Your task to perform on an android device: turn on data saver in the chrome app Image 0: 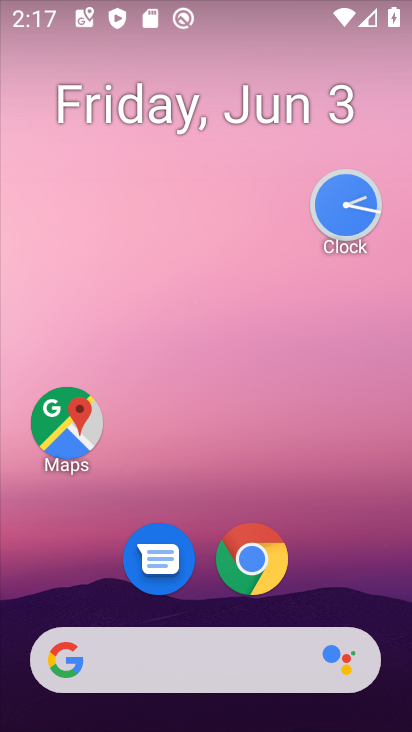
Step 0: click (277, 557)
Your task to perform on an android device: turn on data saver in the chrome app Image 1: 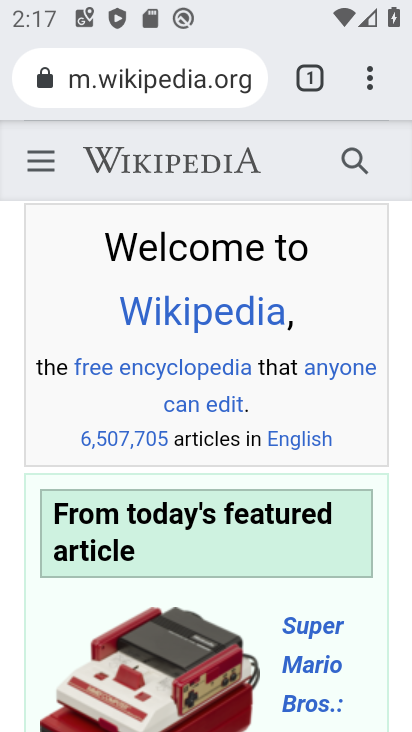
Step 1: click (361, 88)
Your task to perform on an android device: turn on data saver in the chrome app Image 2: 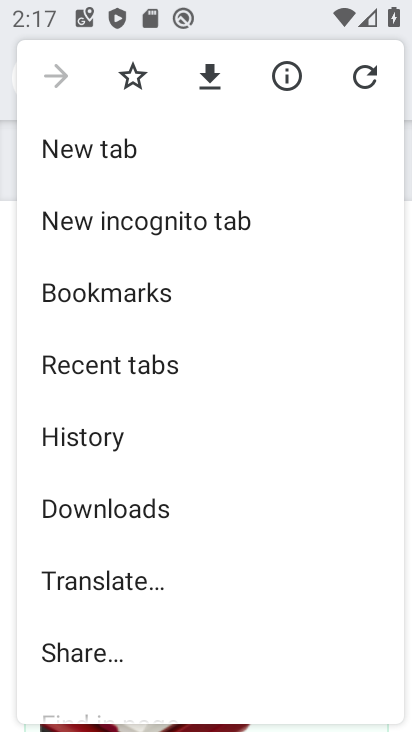
Step 2: drag from (264, 574) to (269, 301)
Your task to perform on an android device: turn on data saver in the chrome app Image 3: 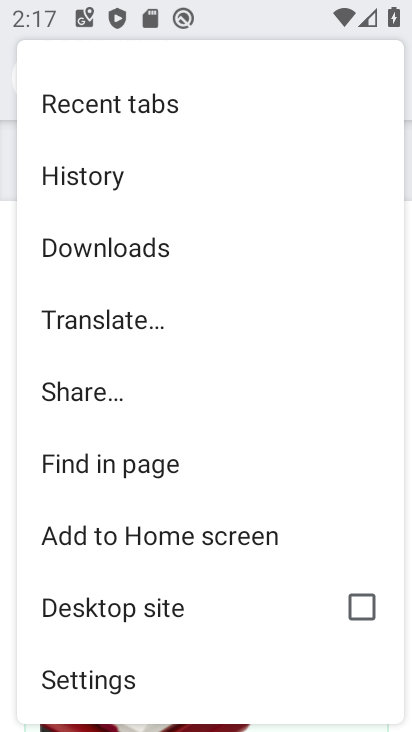
Step 3: click (160, 671)
Your task to perform on an android device: turn on data saver in the chrome app Image 4: 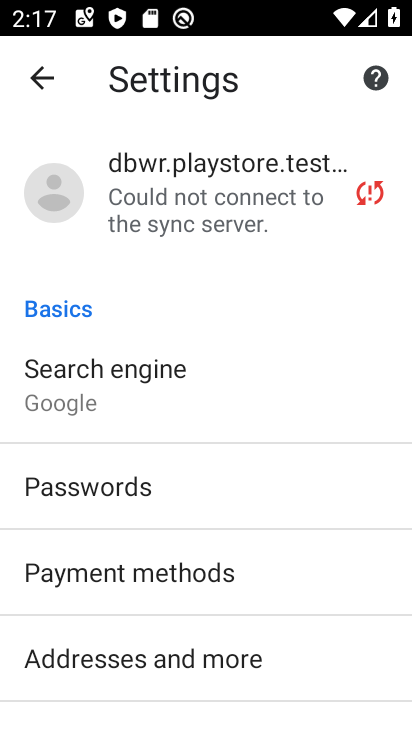
Step 4: drag from (160, 671) to (178, 451)
Your task to perform on an android device: turn on data saver in the chrome app Image 5: 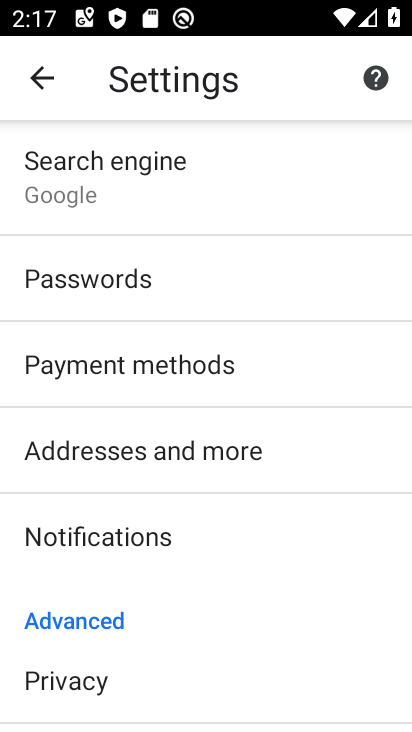
Step 5: drag from (174, 613) to (163, 464)
Your task to perform on an android device: turn on data saver in the chrome app Image 6: 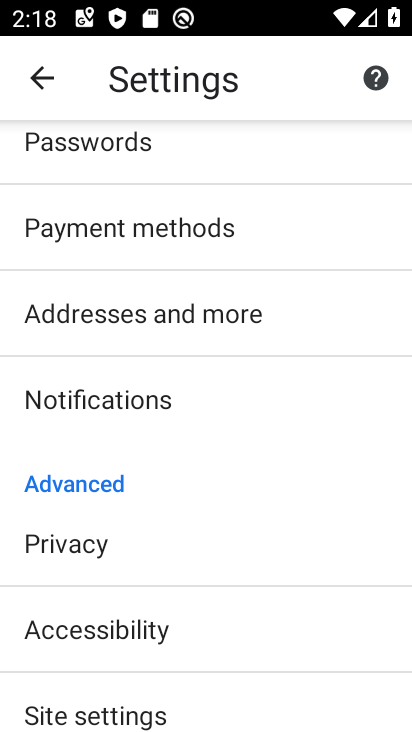
Step 6: drag from (169, 534) to (167, 426)
Your task to perform on an android device: turn on data saver in the chrome app Image 7: 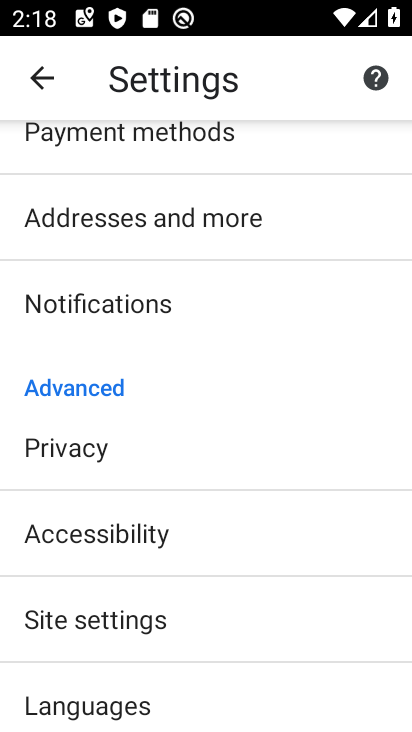
Step 7: drag from (194, 631) to (152, 406)
Your task to perform on an android device: turn on data saver in the chrome app Image 8: 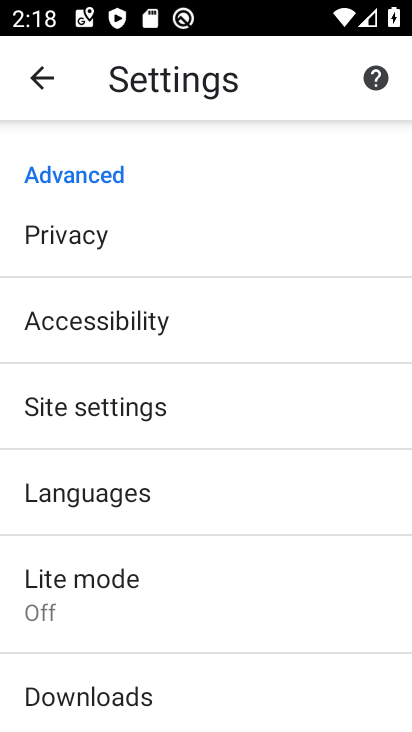
Step 8: click (168, 604)
Your task to perform on an android device: turn on data saver in the chrome app Image 9: 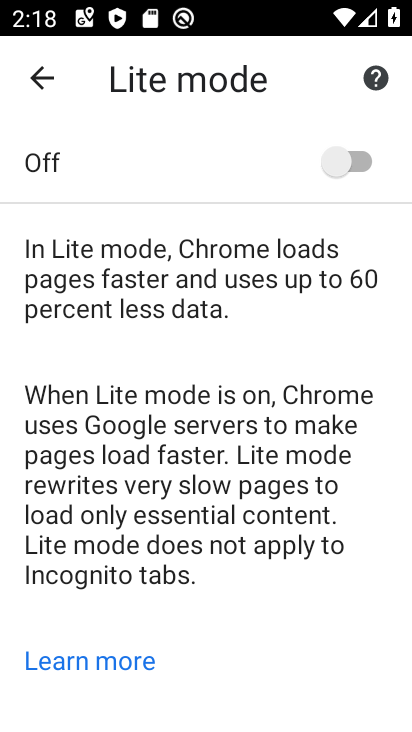
Step 9: click (333, 157)
Your task to perform on an android device: turn on data saver in the chrome app Image 10: 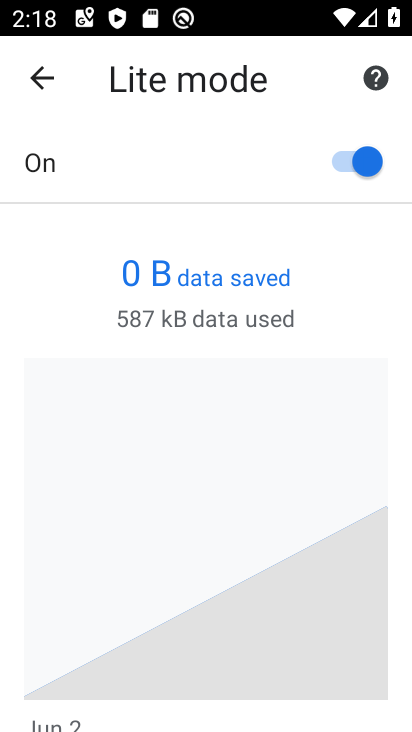
Step 10: task complete